Your task to perform on an android device: Add jbl charge 4 to the cart on walmart Image 0: 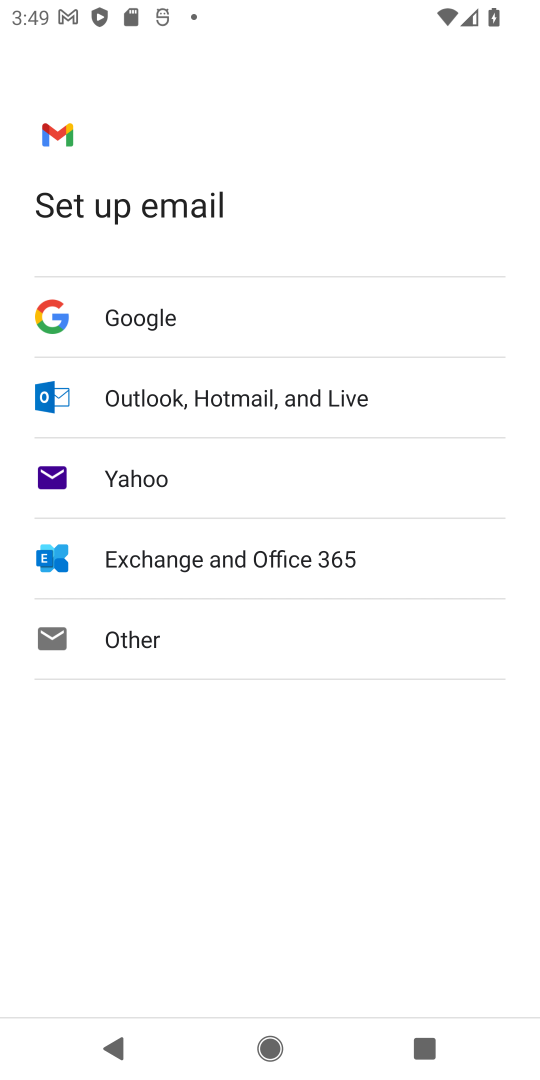
Step 0: press home button
Your task to perform on an android device: Add jbl charge 4 to the cart on walmart Image 1: 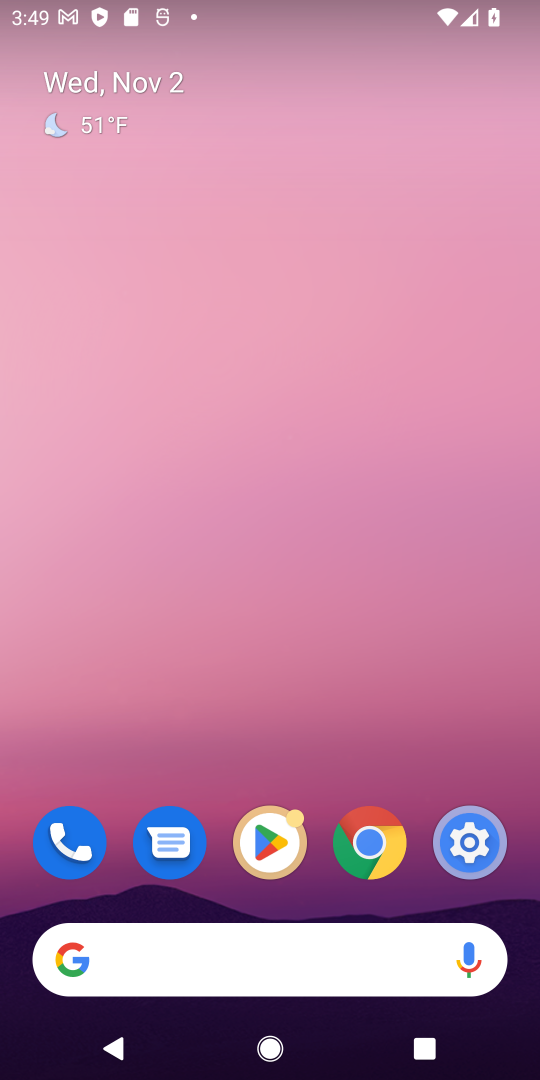
Step 1: click (254, 944)
Your task to perform on an android device: Add jbl charge 4 to the cart on walmart Image 2: 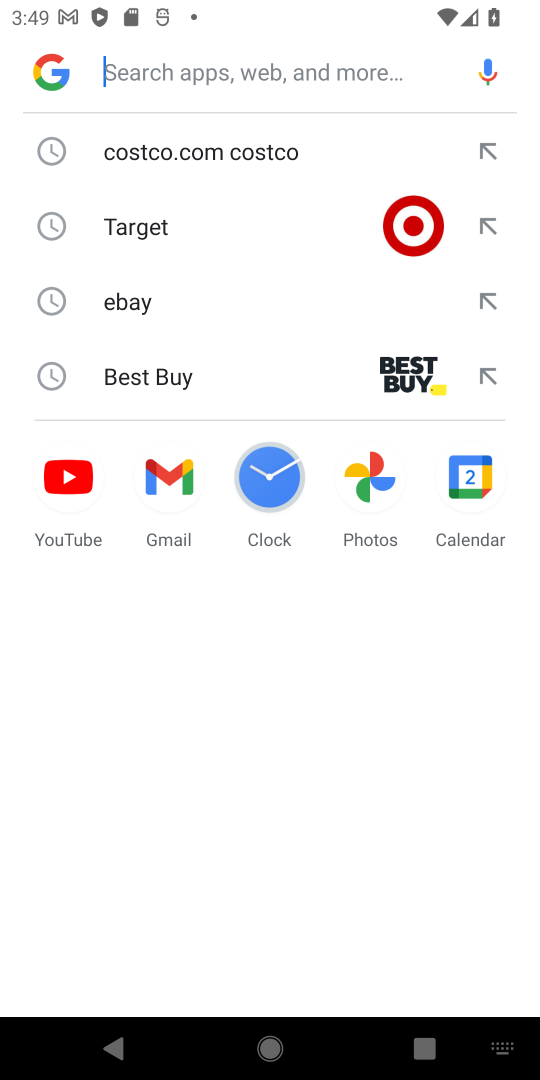
Step 2: type "walmart"
Your task to perform on an android device: Add jbl charge 4 to the cart on walmart Image 3: 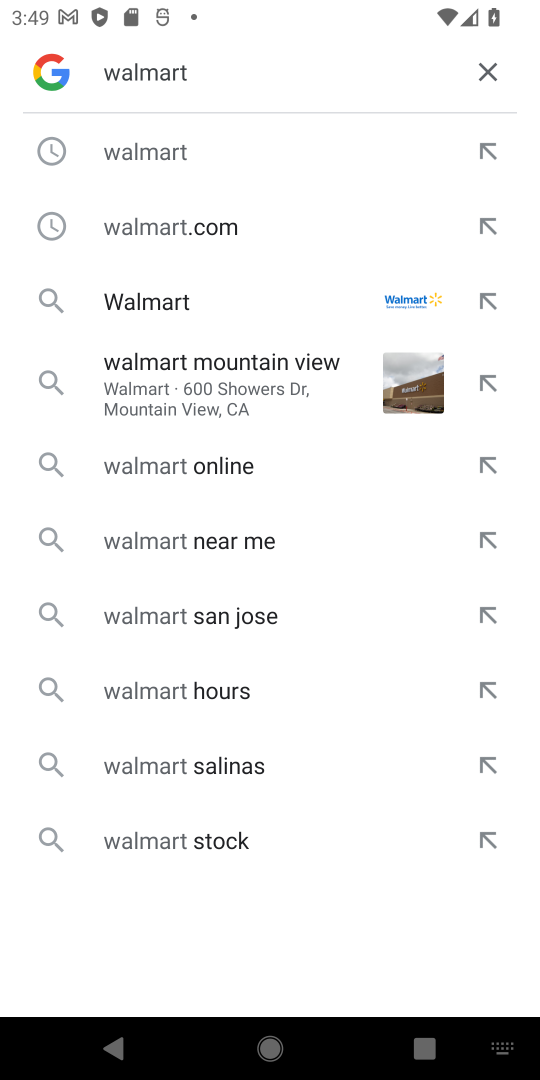
Step 3: click (155, 150)
Your task to perform on an android device: Add jbl charge 4 to the cart on walmart Image 4: 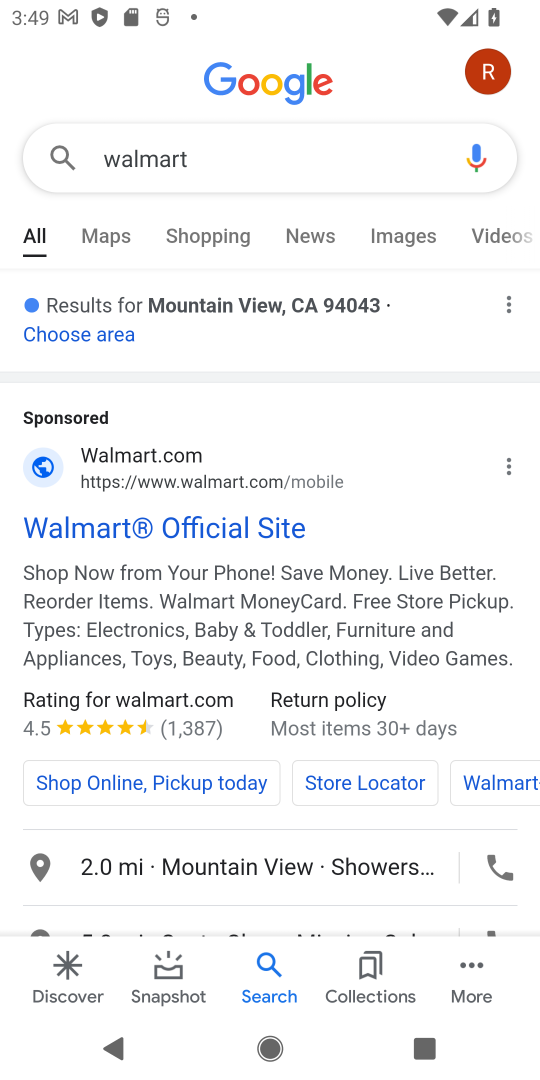
Step 4: drag from (373, 524) to (352, 295)
Your task to perform on an android device: Add jbl charge 4 to the cart on walmart Image 5: 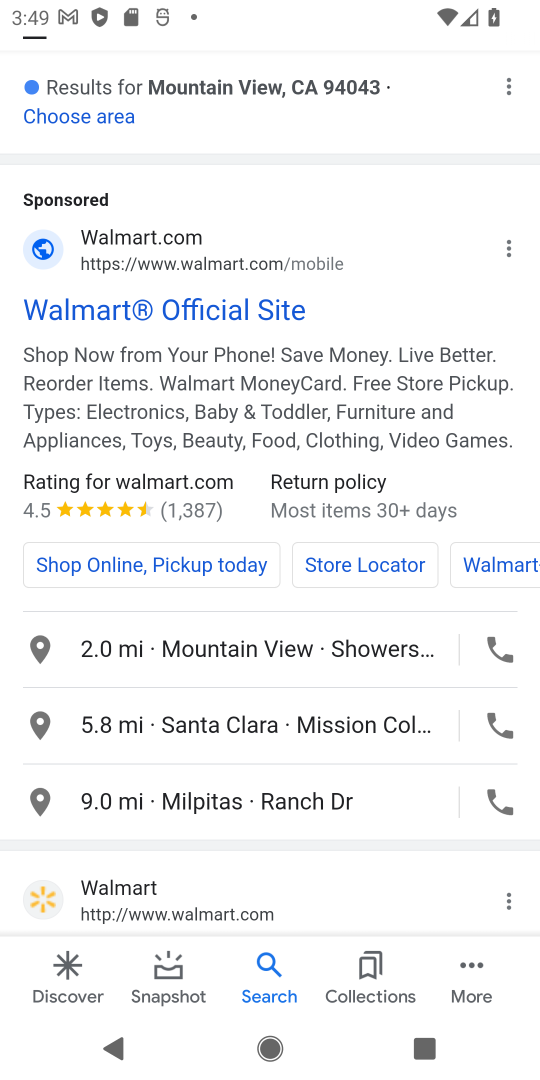
Step 5: drag from (319, 881) to (286, 483)
Your task to perform on an android device: Add jbl charge 4 to the cart on walmart Image 6: 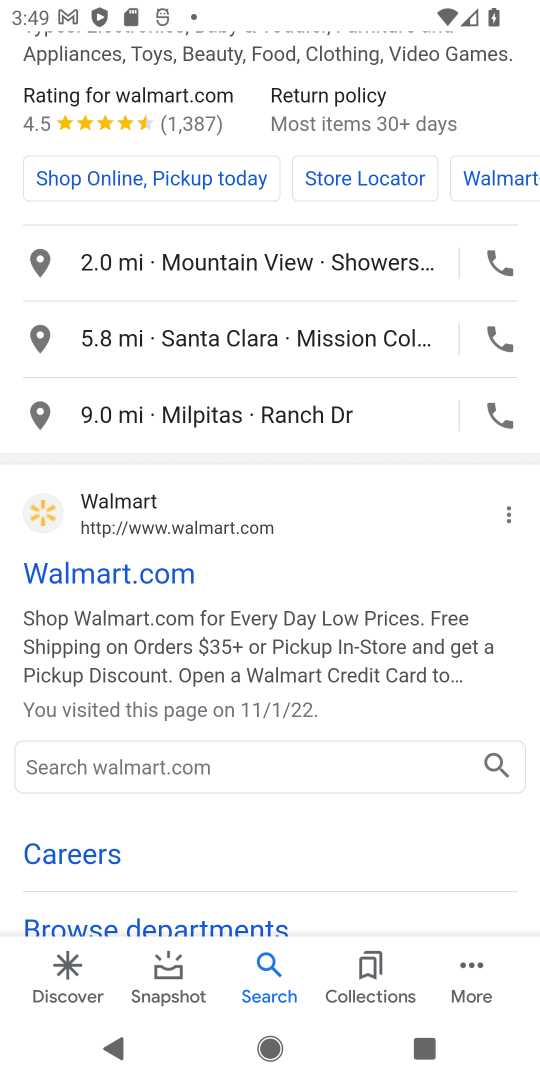
Step 6: click (117, 566)
Your task to perform on an android device: Add jbl charge 4 to the cart on walmart Image 7: 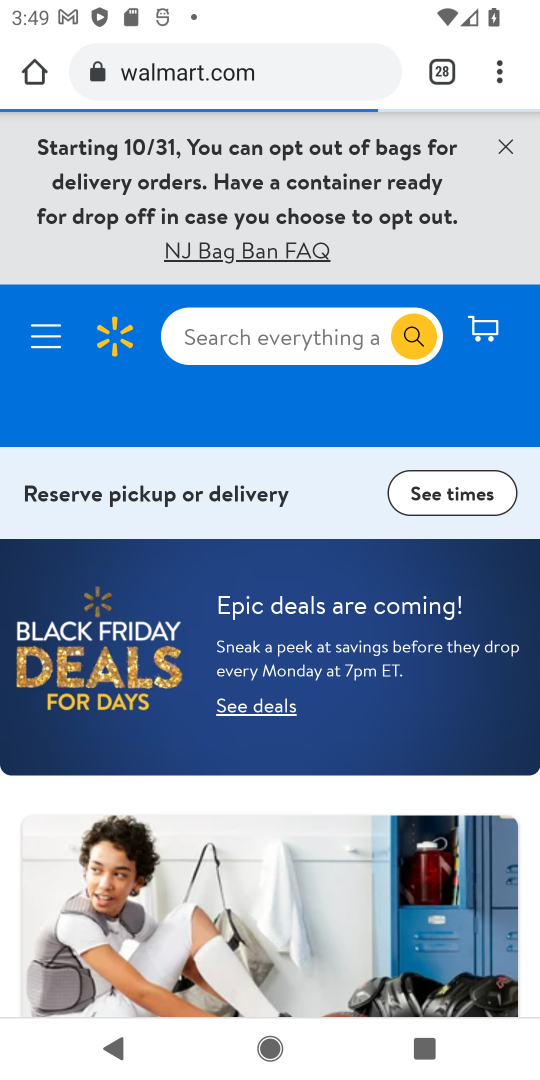
Step 7: click (260, 336)
Your task to perform on an android device: Add jbl charge 4 to the cart on walmart Image 8: 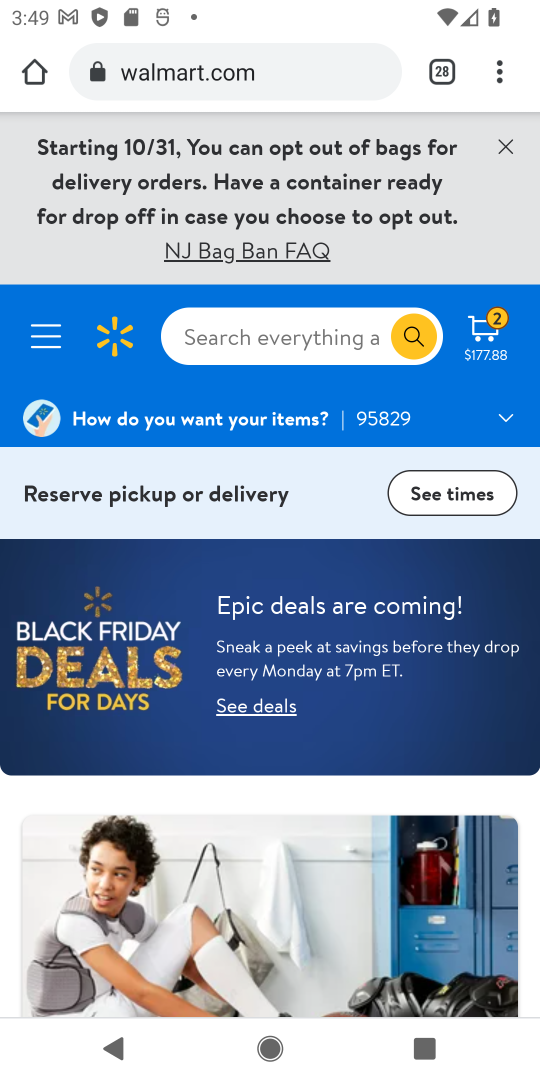
Step 8: click (269, 332)
Your task to perform on an android device: Add jbl charge 4 to the cart on walmart Image 9: 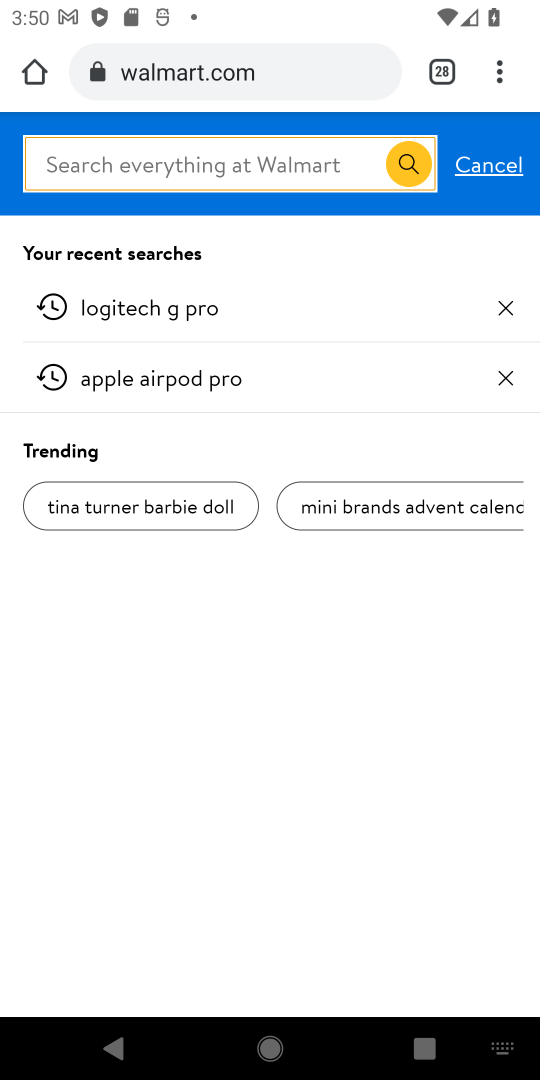
Step 9: type "jbl charger 4"
Your task to perform on an android device: Add jbl charge 4 to the cart on walmart Image 10: 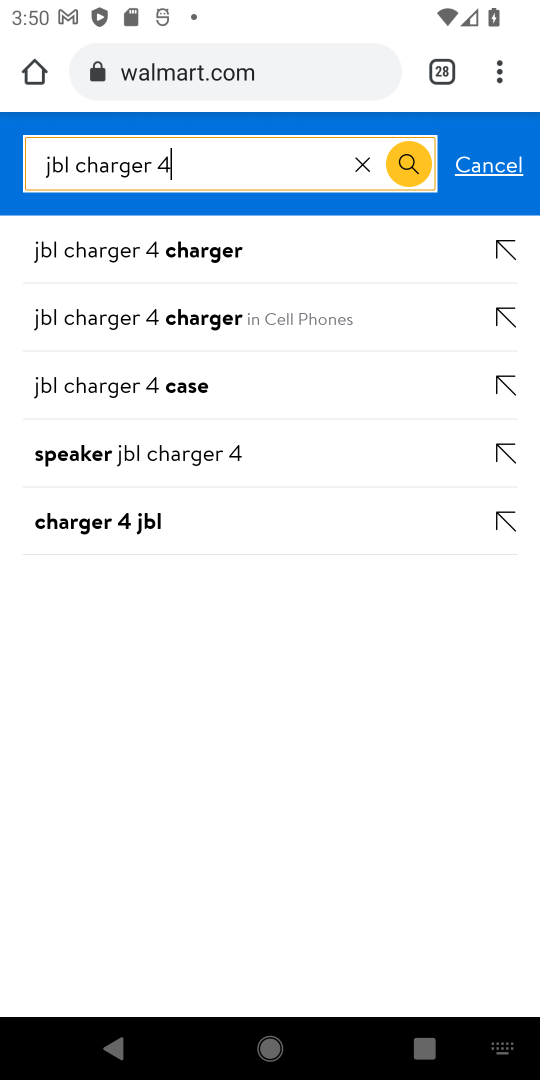
Step 10: click (183, 250)
Your task to perform on an android device: Add jbl charge 4 to the cart on walmart Image 11: 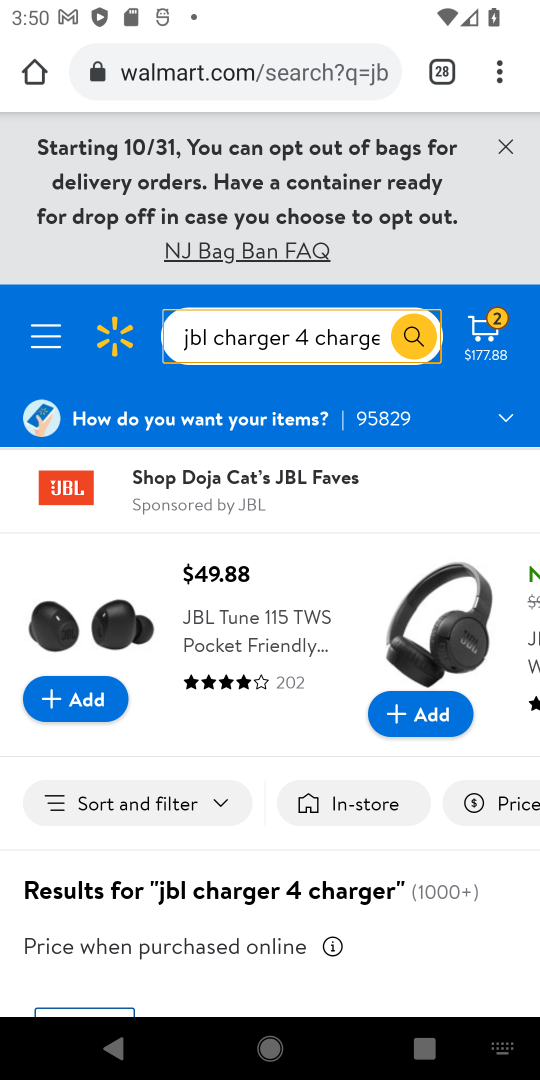
Step 11: click (75, 705)
Your task to perform on an android device: Add jbl charge 4 to the cart on walmart Image 12: 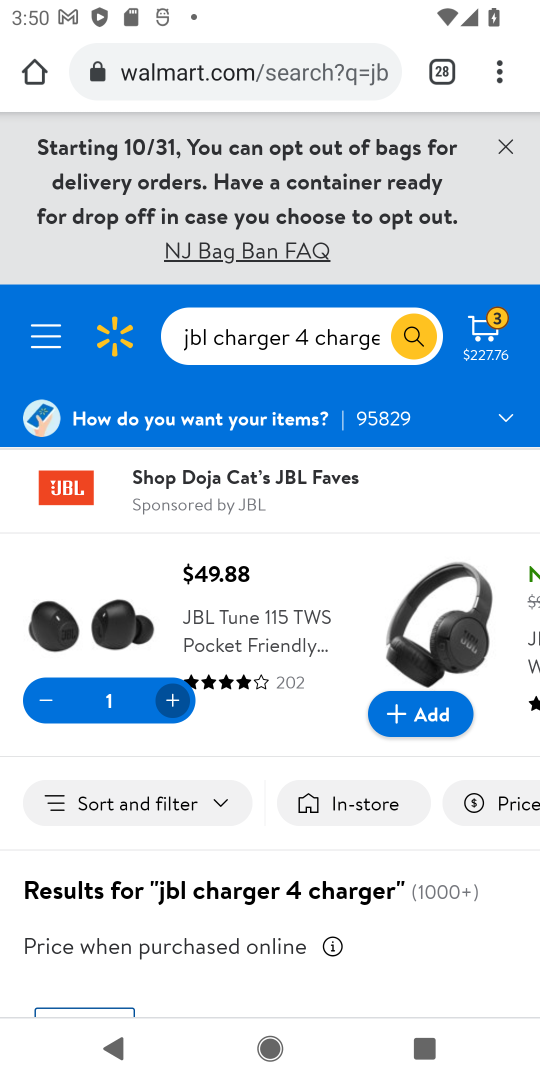
Step 12: task complete